Your task to perform on an android device: Check the news Image 0: 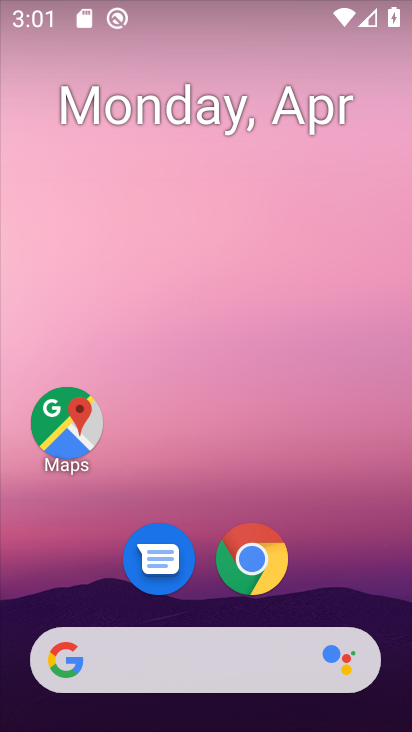
Step 0: drag from (165, 618) to (222, 146)
Your task to perform on an android device: Check the news Image 1: 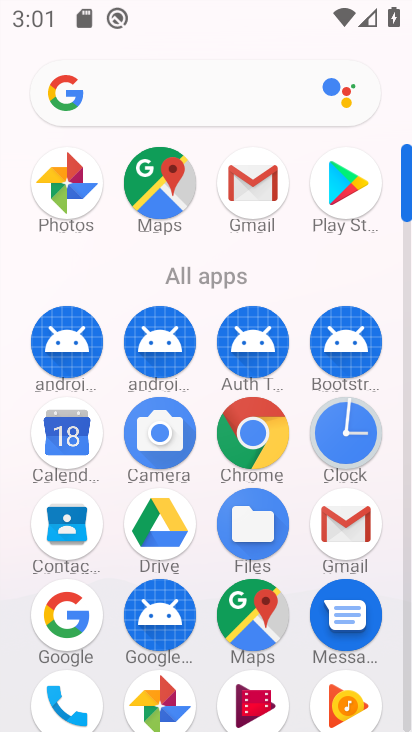
Step 1: click (255, 429)
Your task to perform on an android device: Check the news Image 2: 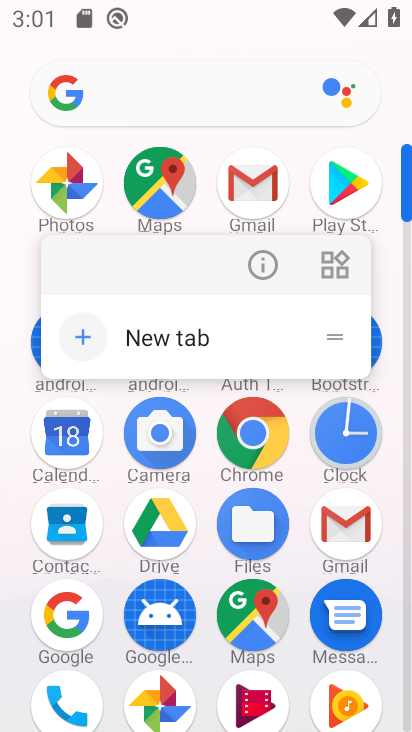
Step 2: click (251, 421)
Your task to perform on an android device: Check the news Image 3: 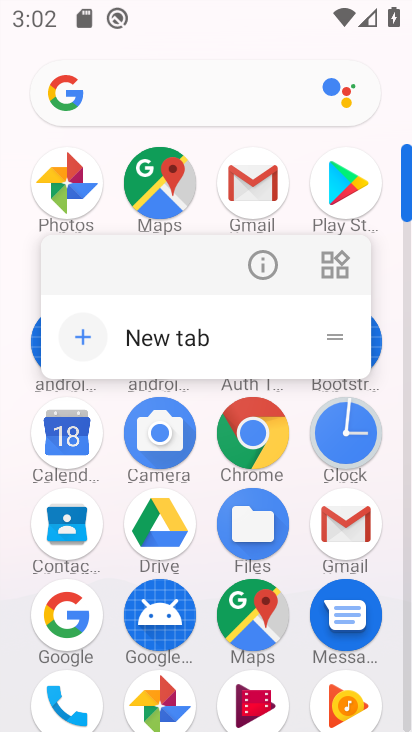
Step 3: click (264, 432)
Your task to perform on an android device: Check the news Image 4: 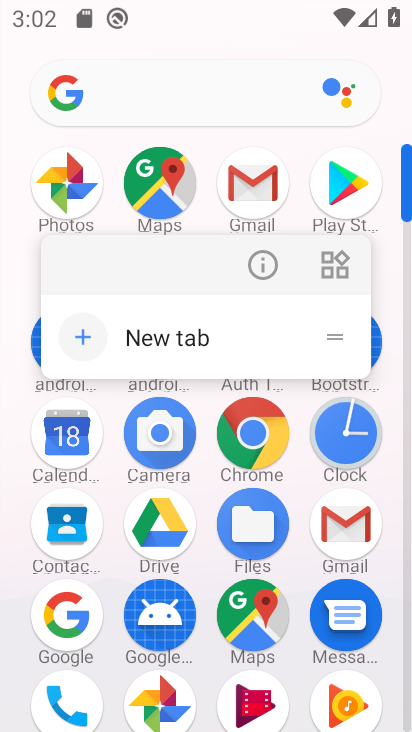
Step 4: click (251, 425)
Your task to perform on an android device: Check the news Image 5: 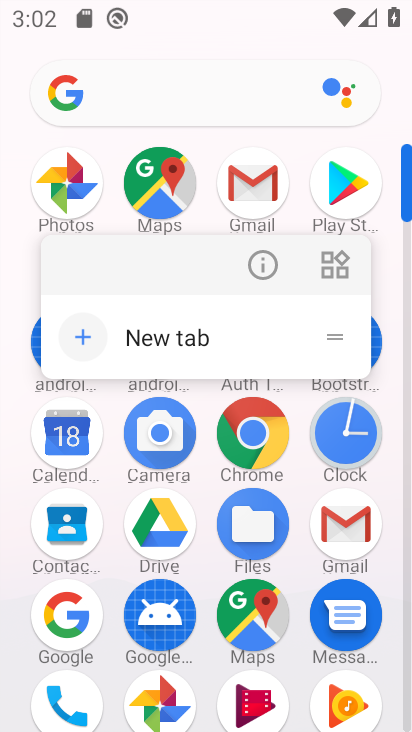
Step 5: click (260, 432)
Your task to perform on an android device: Check the news Image 6: 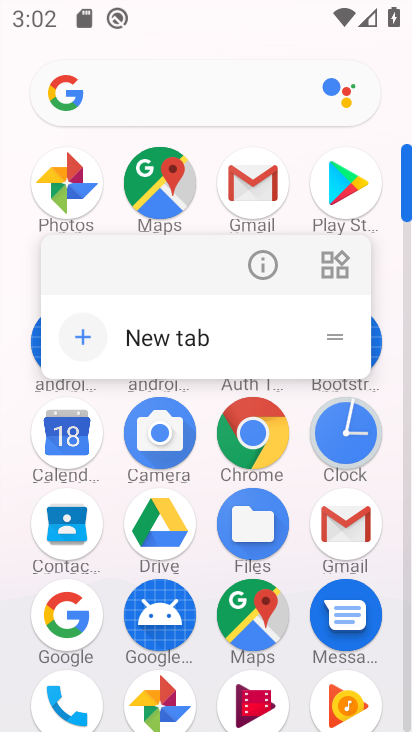
Step 6: click (255, 435)
Your task to perform on an android device: Check the news Image 7: 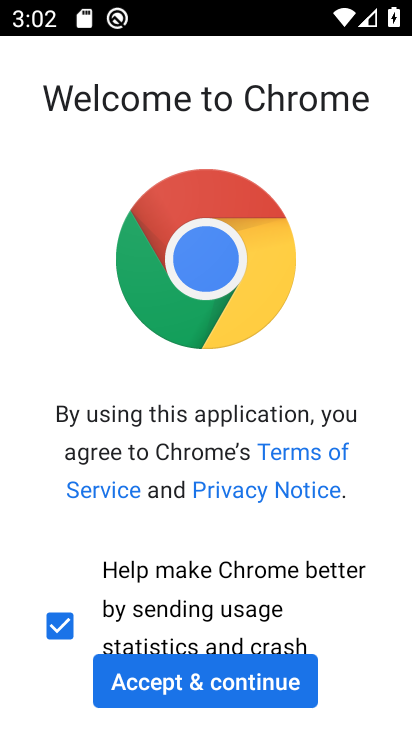
Step 7: click (207, 668)
Your task to perform on an android device: Check the news Image 8: 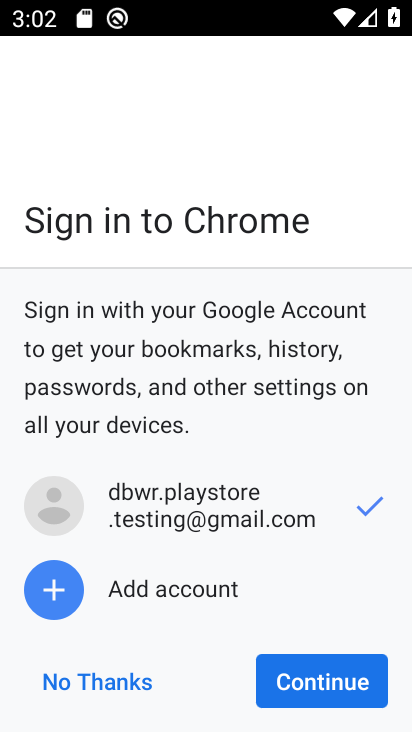
Step 8: click (284, 663)
Your task to perform on an android device: Check the news Image 9: 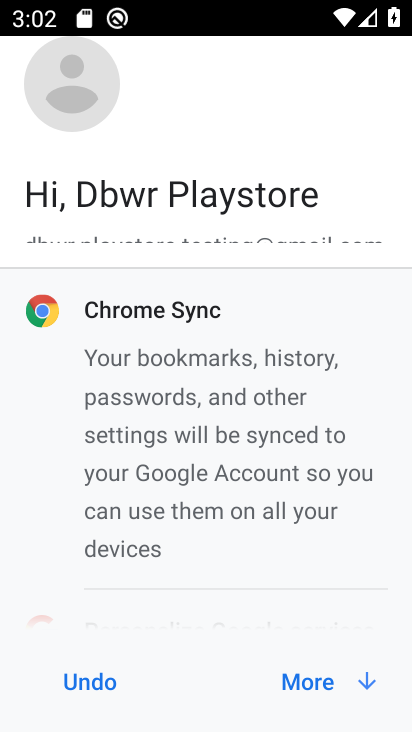
Step 9: click (319, 676)
Your task to perform on an android device: Check the news Image 10: 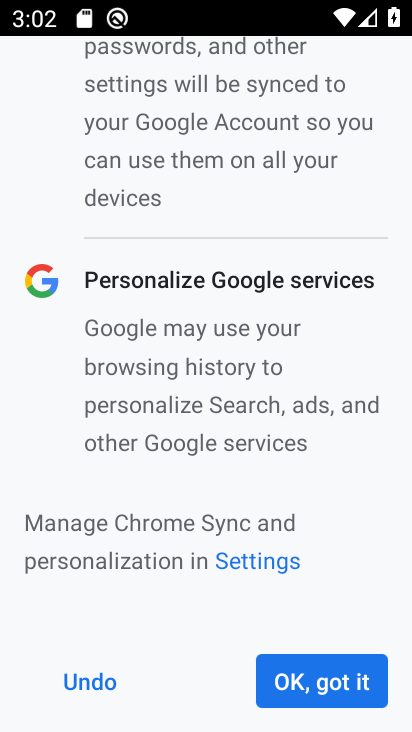
Step 10: click (319, 675)
Your task to perform on an android device: Check the news Image 11: 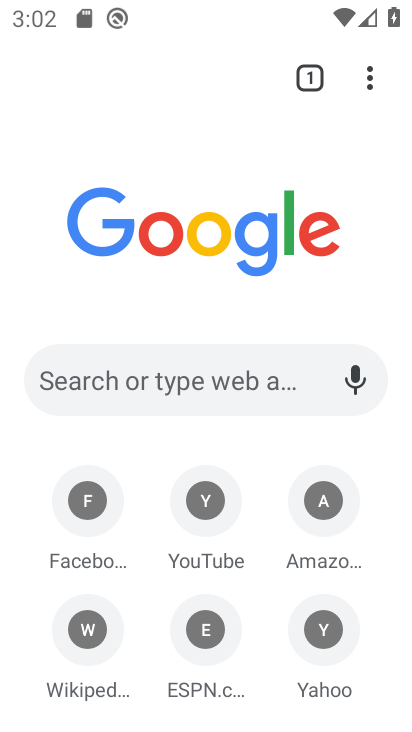
Step 11: click (161, 372)
Your task to perform on an android device: Check the news Image 12: 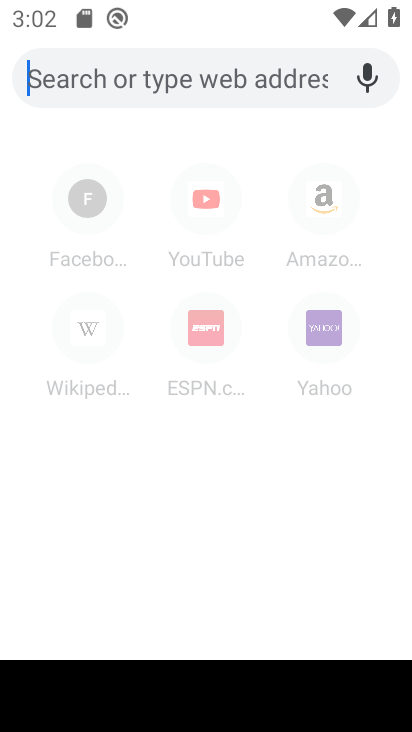
Step 12: type "news"
Your task to perform on an android device: Check the news Image 13: 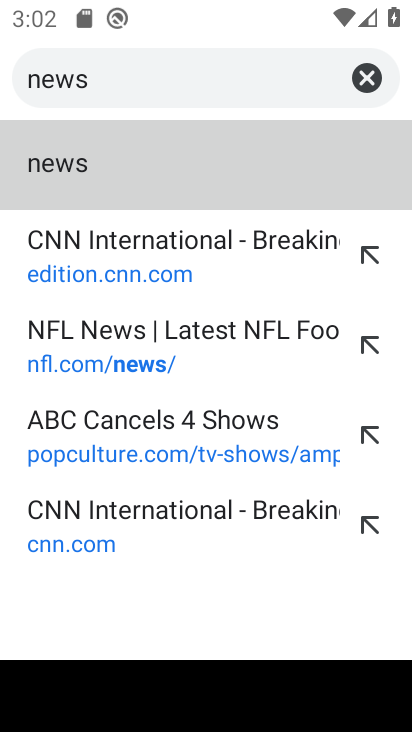
Step 13: click (94, 179)
Your task to perform on an android device: Check the news Image 14: 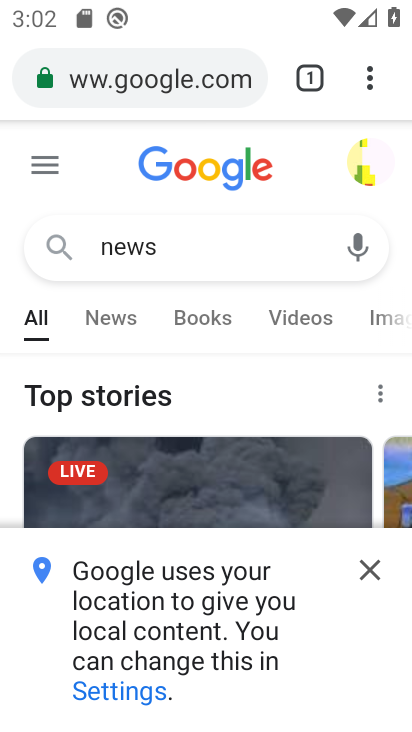
Step 14: task complete